Your task to perform on an android device: turn on improve location accuracy Image 0: 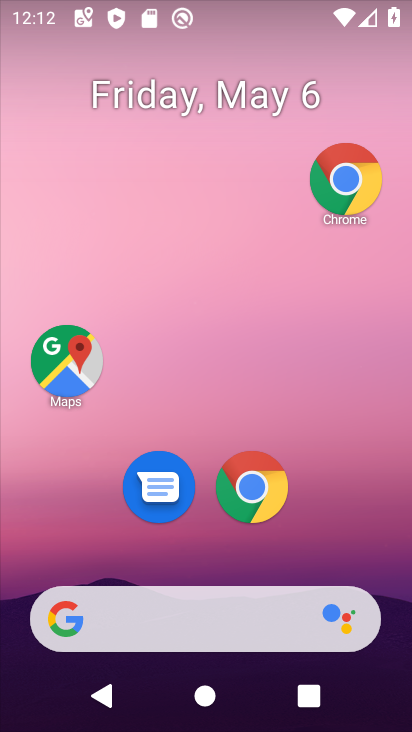
Step 0: drag from (318, 540) to (292, 162)
Your task to perform on an android device: turn on improve location accuracy Image 1: 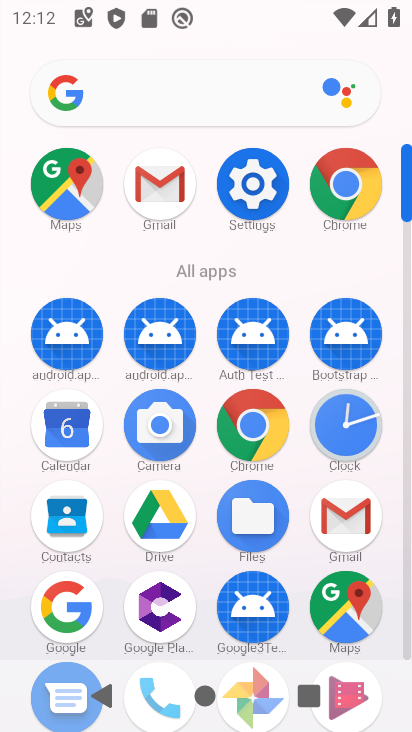
Step 1: click (254, 227)
Your task to perform on an android device: turn on improve location accuracy Image 2: 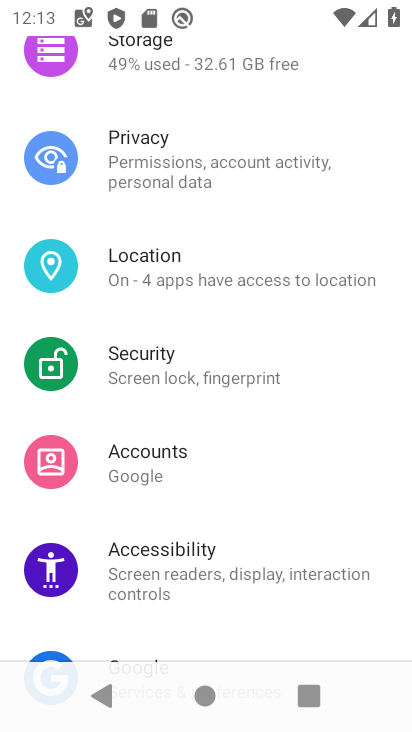
Step 2: drag from (203, 503) to (229, 327)
Your task to perform on an android device: turn on improve location accuracy Image 3: 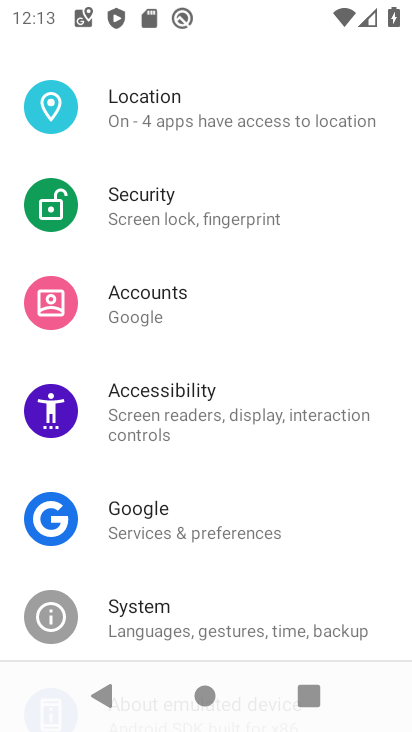
Step 3: click (229, 325)
Your task to perform on an android device: turn on improve location accuracy Image 4: 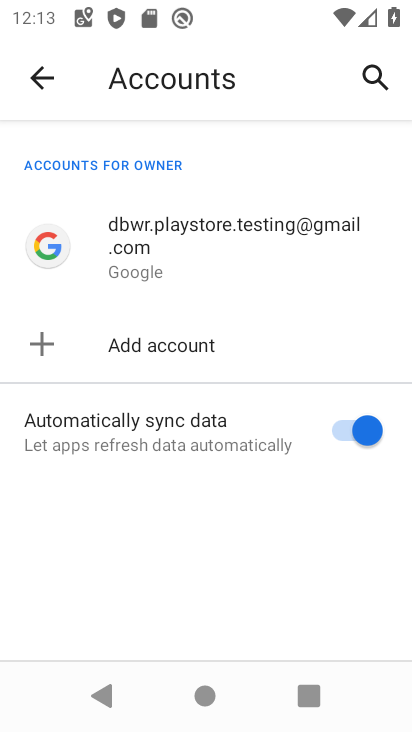
Step 4: click (42, 83)
Your task to perform on an android device: turn on improve location accuracy Image 5: 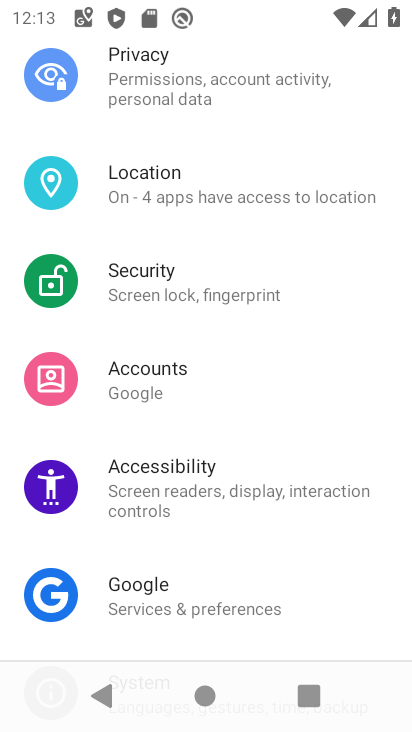
Step 5: drag from (215, 165) to (222, 359)
Your task to perform on an android device: turn on improve location accuracy Image 6: 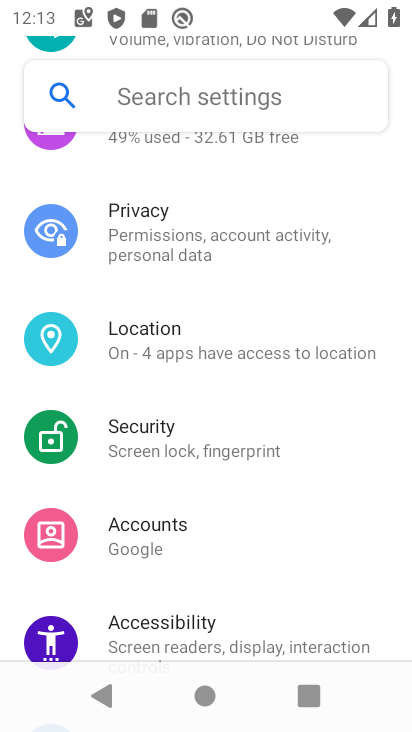
Step 6: drag from (213, 310) to (209, 407)
Your task to perform on an android device: turn on improve location accuracy Image 7: 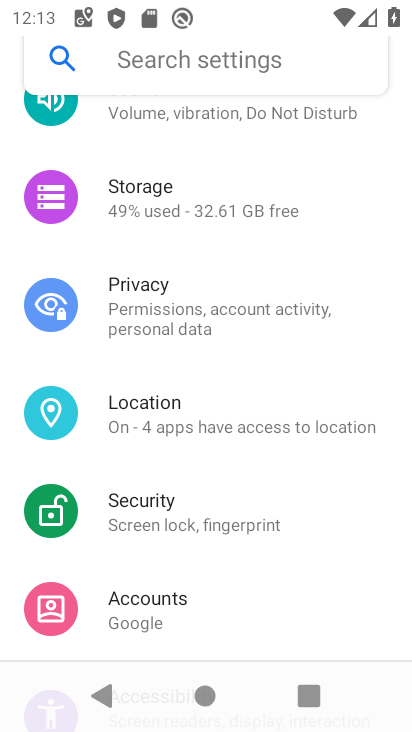
Step 7: click (209, 407)
Your task to perform on an android device: turn on improve location accuracy Image 8: 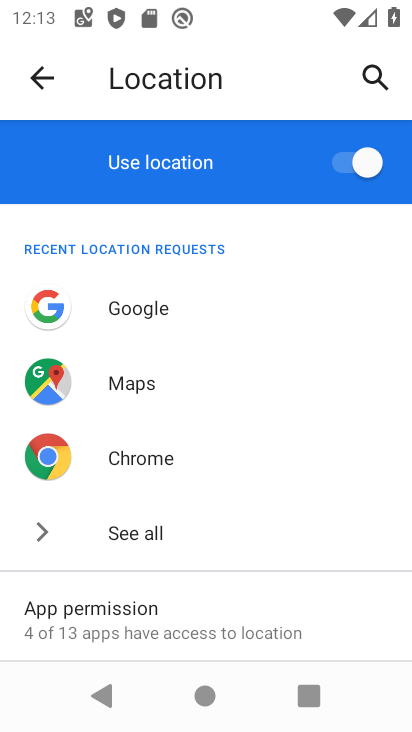
Step 8: task complete